Your task to perform on an android device: Open Reddit.com Image 0: 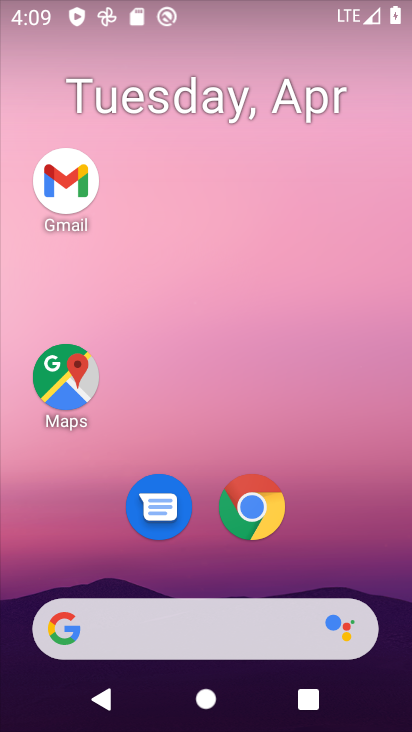
Step 0: click (266, 506)
Your task to perform on an android device: Open Reddit.com Image 1: 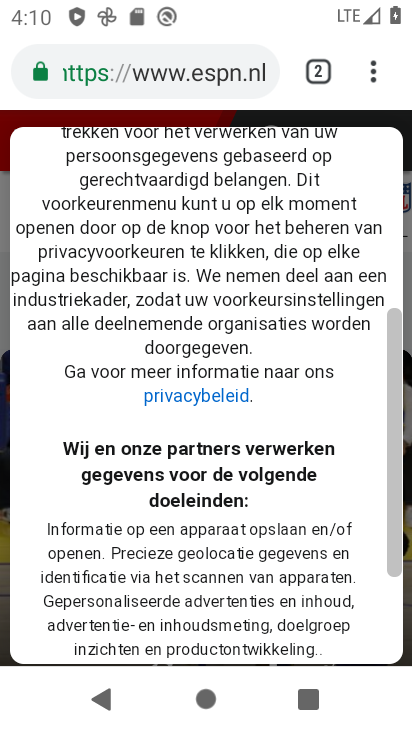
Step 1: click (318, 73)
Your task to perform on an android device: Open Reddit.com Image 2: 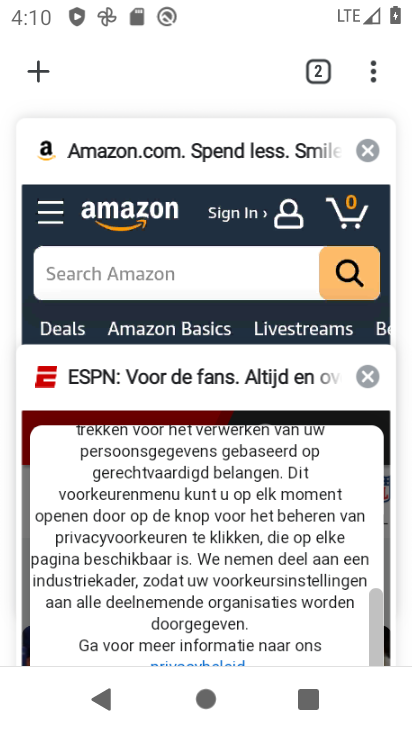
Step 2: click (40, 65)
Your task to perform on an android device: Open Reddit.com Image 3: 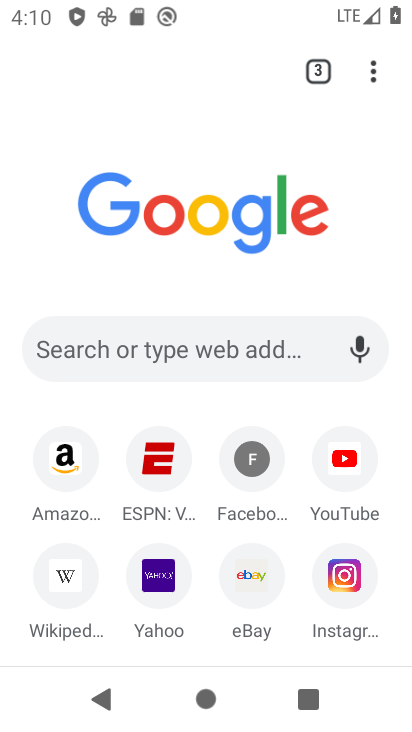
Step 3: click (165, 346)
Your task to perform on an android device: Open Reddit.com Image 4: 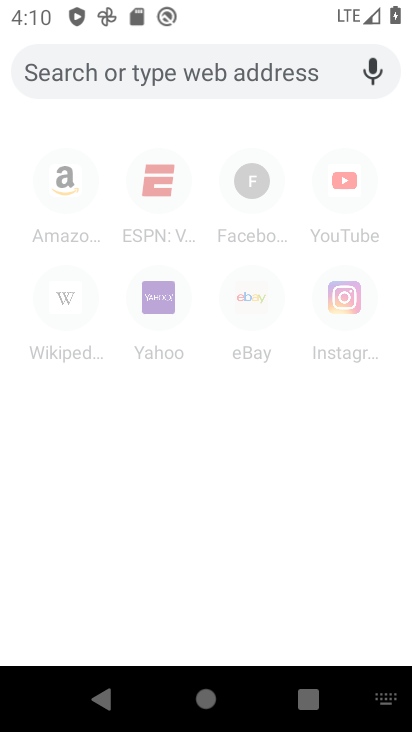
Step 4: type "reddit"
Your task to perform on an android device: Open Reddit.com Image 5: 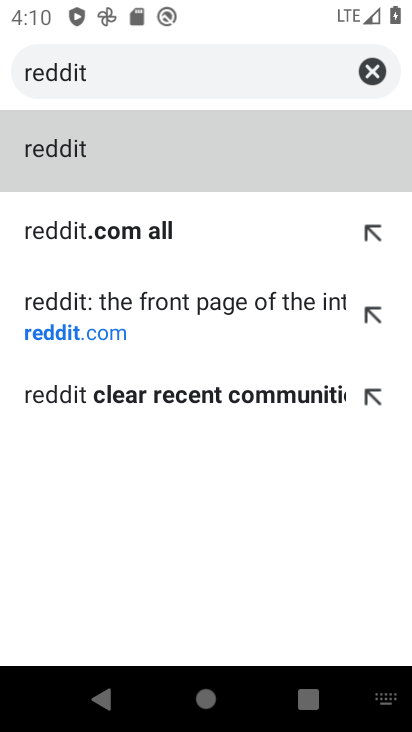
Step 5: click (166, 228)
Your task to perform on an android device: Open Reddit.com Image 6: 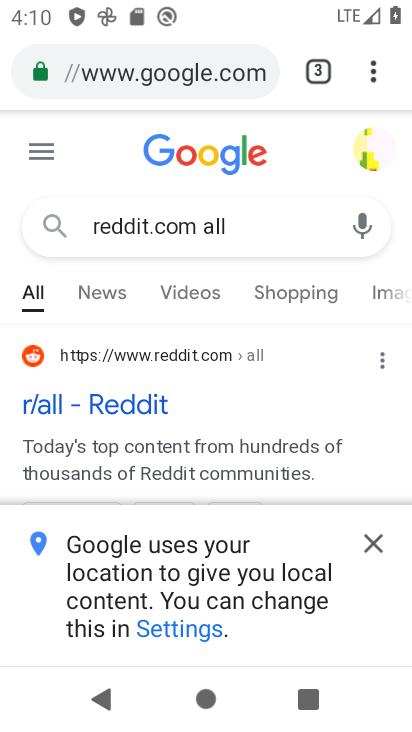
Step 6: click (382, 542)
Your task to perform on an android device: Open Reddit.com Image 7: 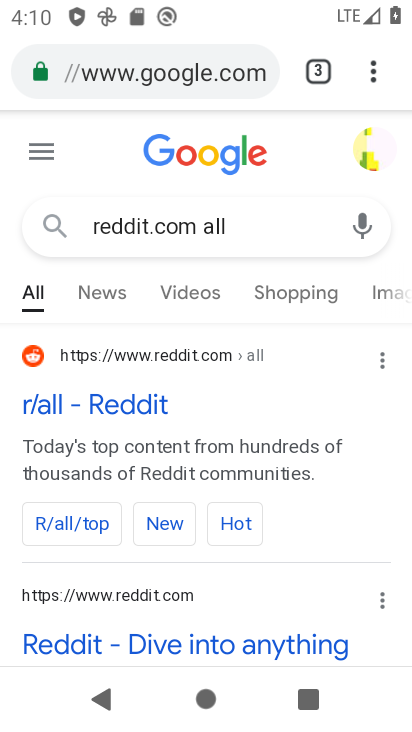
Step 7: click (95, 404)
Your task to perform on an android device: Open Reddit.com Image 8: 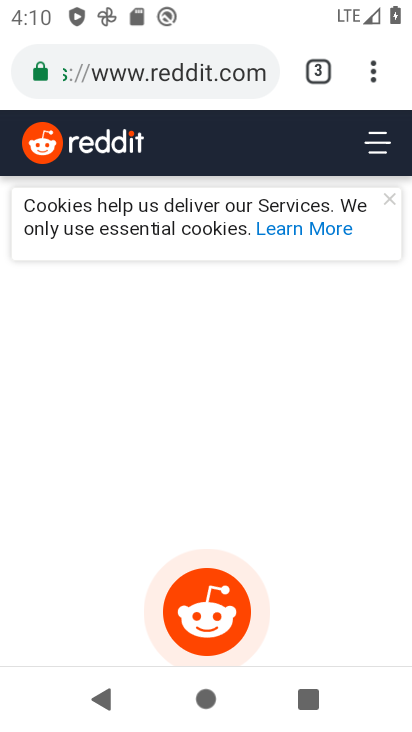
Step 8: task complete